Your task to perform on an android device: turn off javascript in the chrome app Image 0: 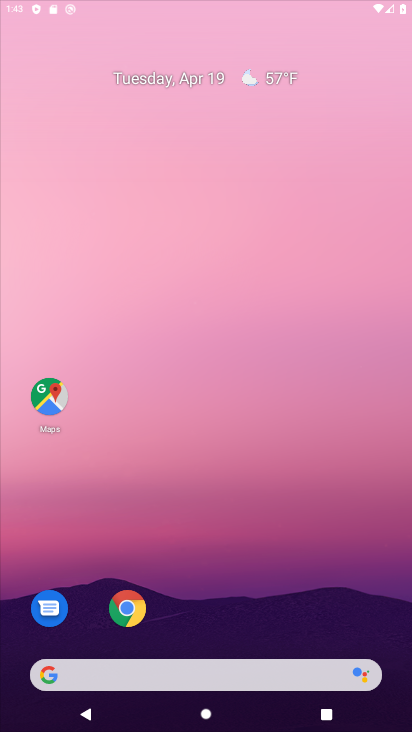
Step 0: click (127, 612)
Your task to perform on an android device: turn off javascript in the chrome app Image 1: 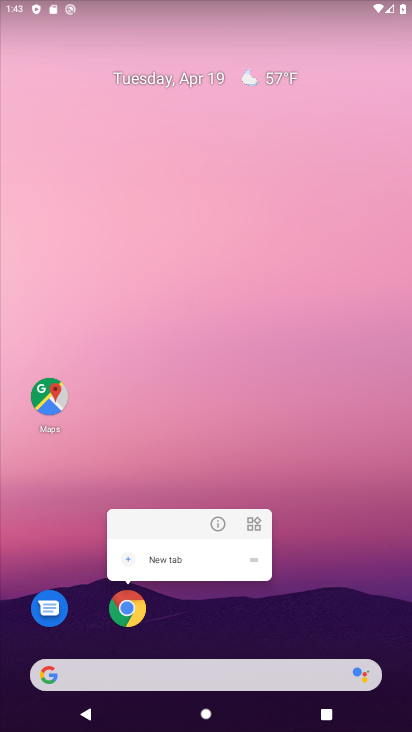
Step 1: click (127, 612)
Your task to perform on an android device: turn off javascript in the chrome app Image 2: 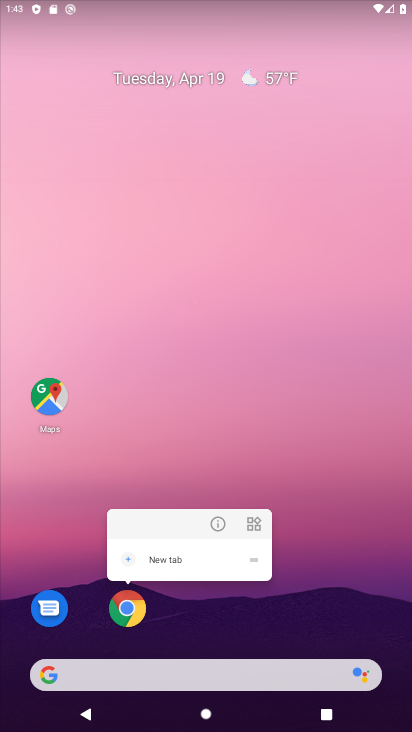
Step 2: click (127, 606)
Your task to perform on an android device: turn off javascript in the chrome app Image 3: 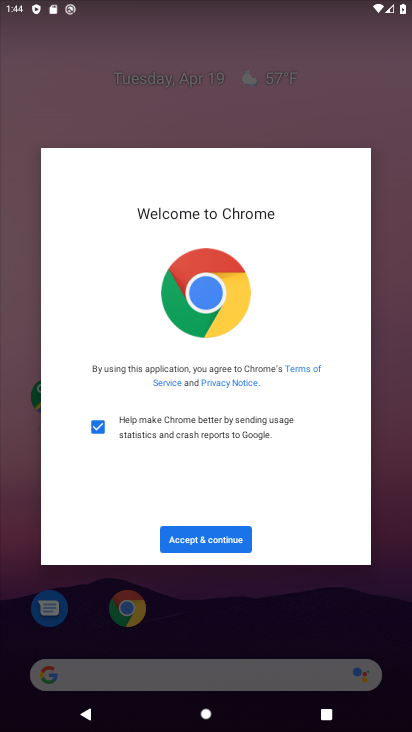
Step 3: click (219, 538)
Your task to perform on an android device: turn off javascript in the chrome app Image 4: 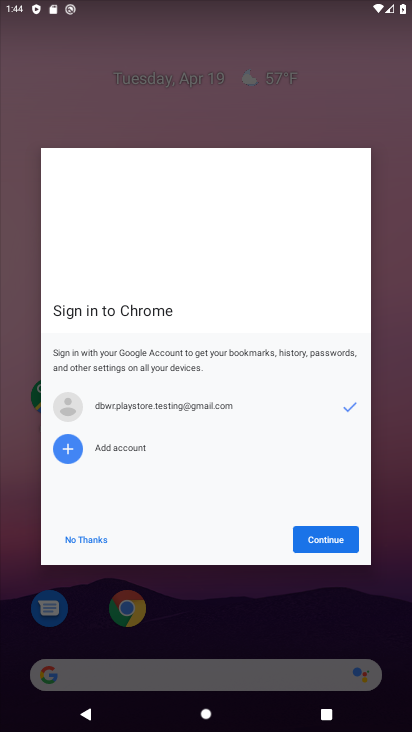
Step 4: click (339, 538)
Your task to perform on an android device: turn off javascript in the chrome app Image 5: 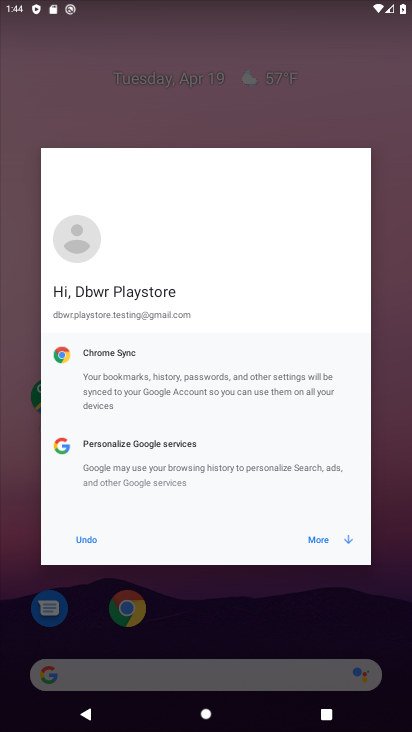
Step 5: click (333, 538)
Your task to perform on an android device: turn off javascript in the chrome app Image 6: 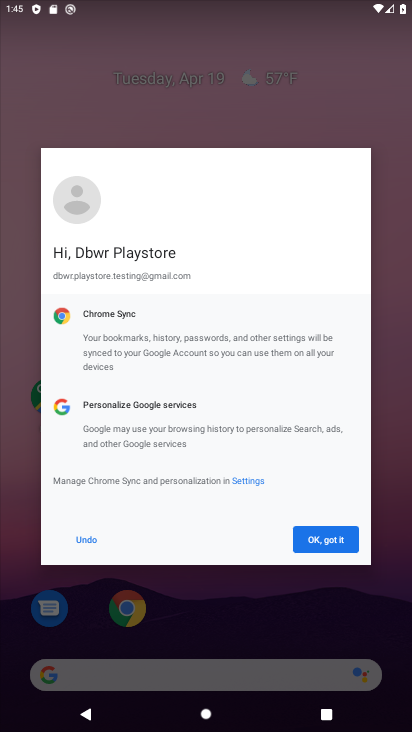
Step 6: click (333, 538)
Your task to perform on an android device: turn off javascript in the chrome app Image 7: 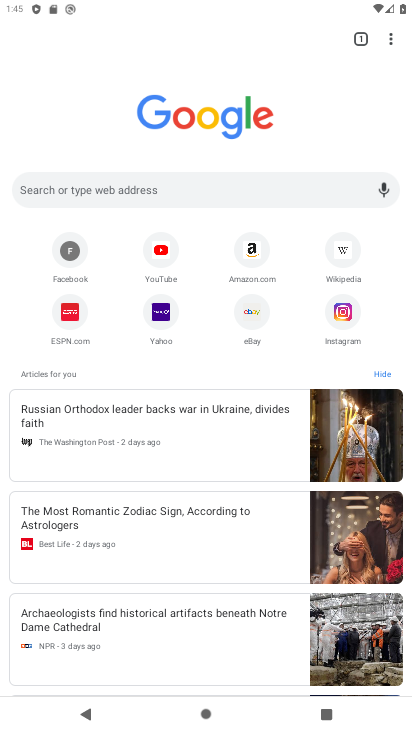
Step 7: click (389, 41)
Your task to perform on an android device: turn off javascript in the chrome app Image 8: 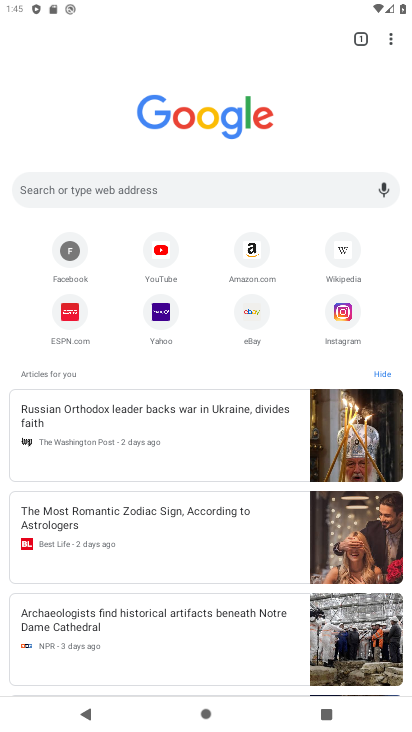
Step 8: click (392, 38)
Your task to perform on an android device: turn off javascript in the chrome app Image 9: 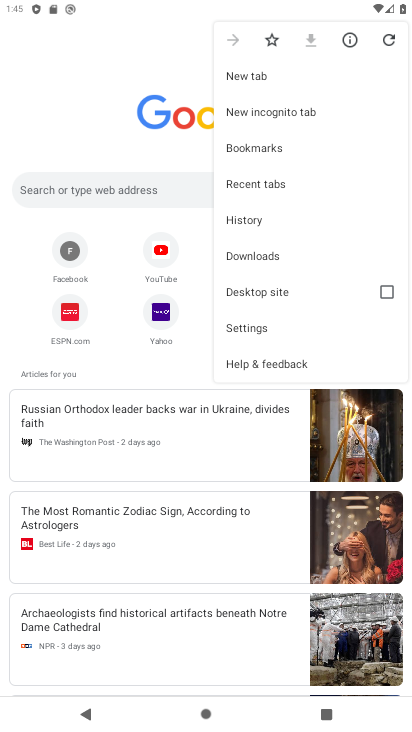
Step 9: click (255, 324)
Your task to perform on an android device: turn off javascript in the chrome app Image 10: 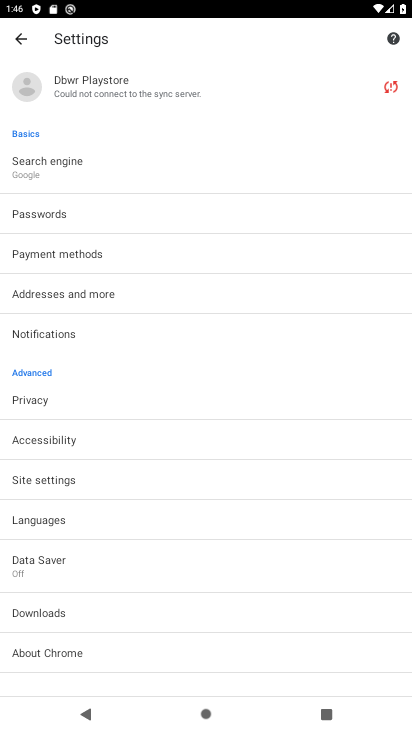
Step 10: click (35, 478)
Your task to perform on an android device: turn off javascript in the chrome app Image 11: 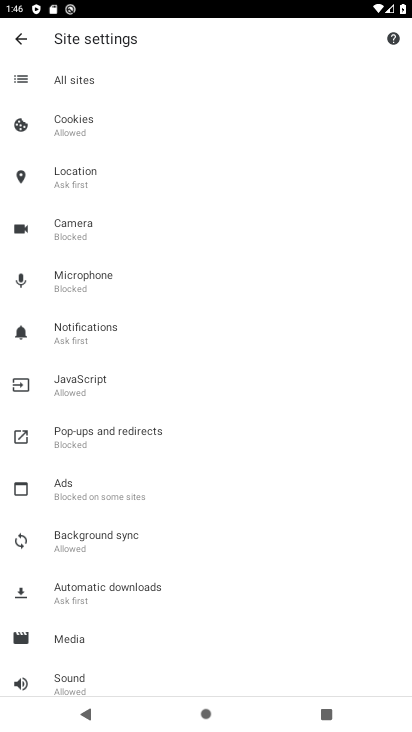
Step 11: click (94, 380)
Your task to perform on an android device: turn off javascript in the chrome app Image 12: 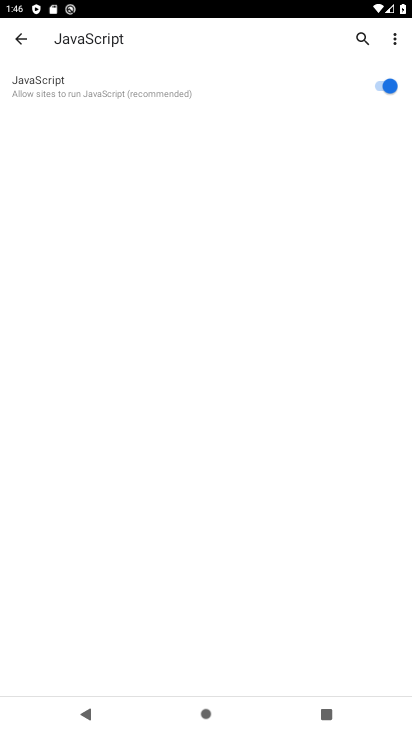
Step 12: click (379, 86)
Your task to perform on an android device: turn off javascript in the chrome app Image 13: 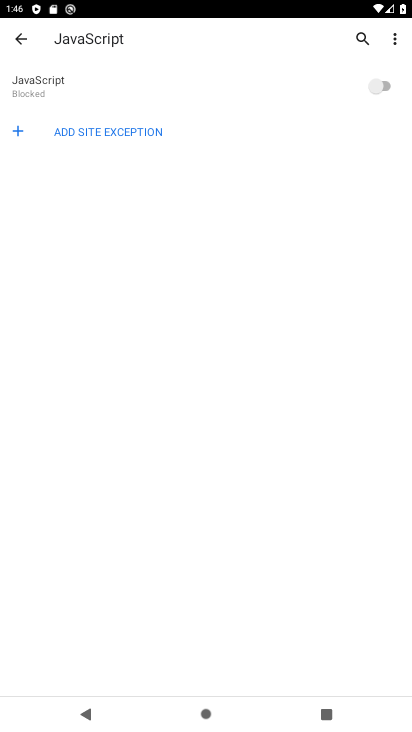
Step 13: task complete